Your task to perform on an android device: Go to wifi settings Image 0: 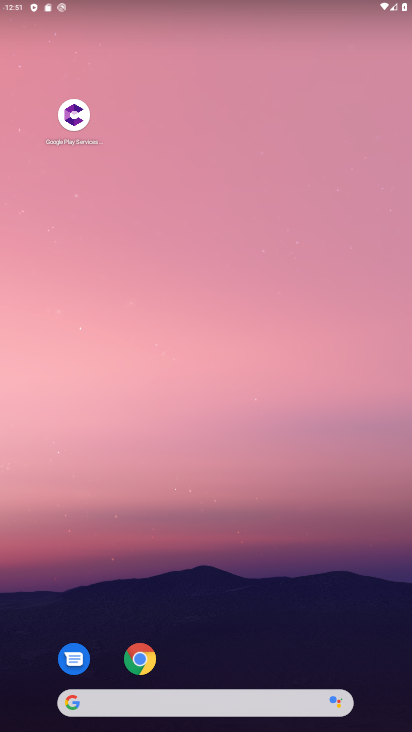
Step 0: drag from (162, 679) to (282, 32)
Your task to perform on an android device: Go to wifi settings Image 1: 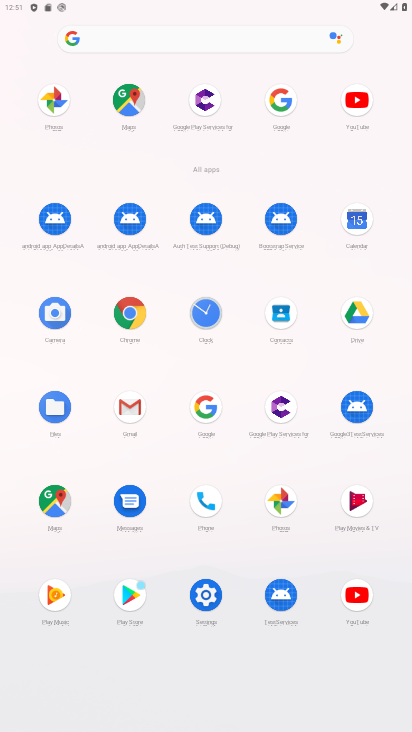
Step 1: click (207, 598)
Your task to perform on an android device: Go to wifi settings Image 2: 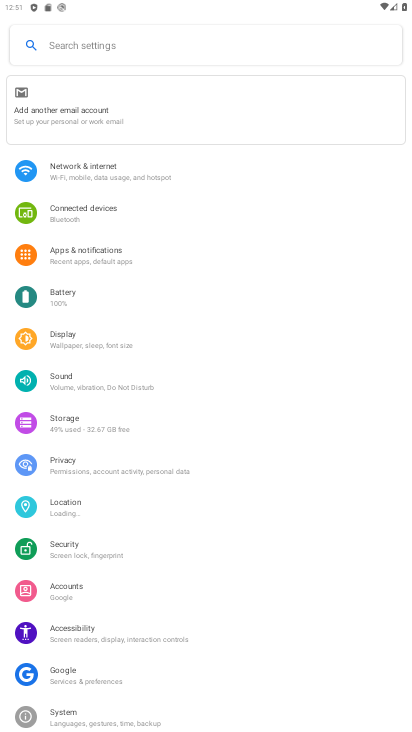
Step 2: click (167, 168)
Your task to perform on an android device: Go to wifi settings Image 3: 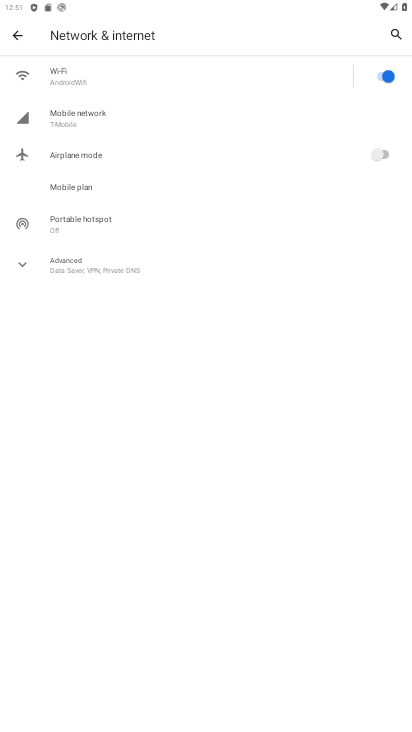
Step 3: click (96, 72)
Your task to perform on an android device: Go to wifi settings Image 4: 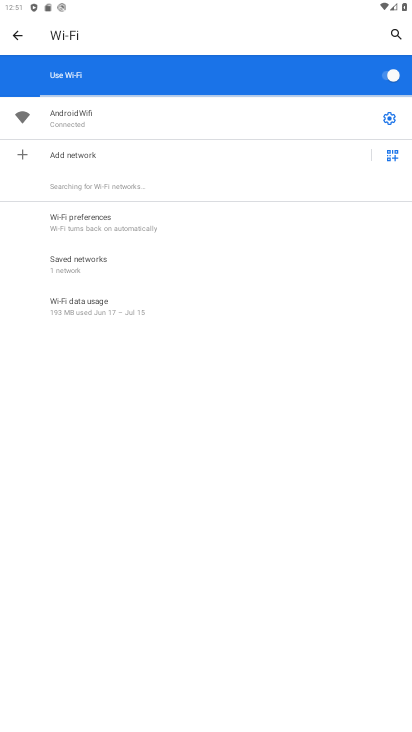
Step 4: task complete